Your task to perform on an android device: allow cookies in the chrome app Image 0: 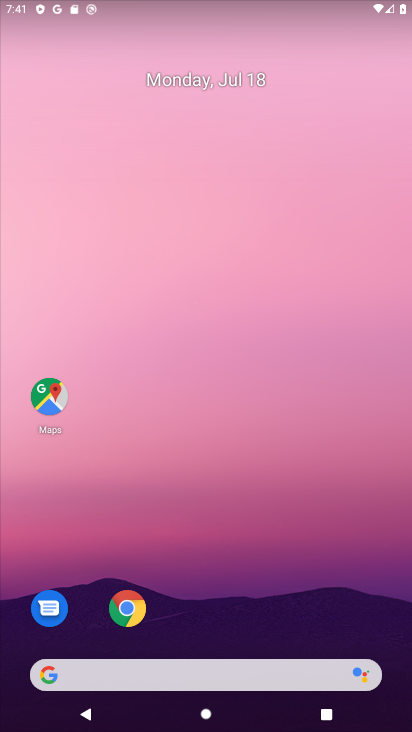
Step 0: click (127, 607)
Your task to perform on an android device: allow cookies in the chrome app Image 1: 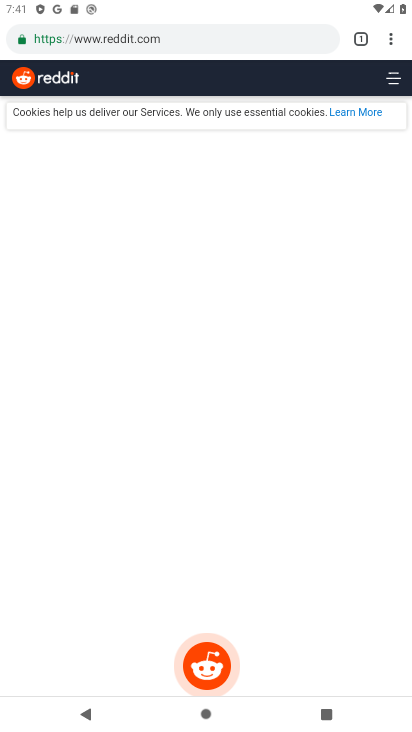
Step 1: click (388, 35)
Your task to perform on an android device: allow cookies in the chrome app Image 2: 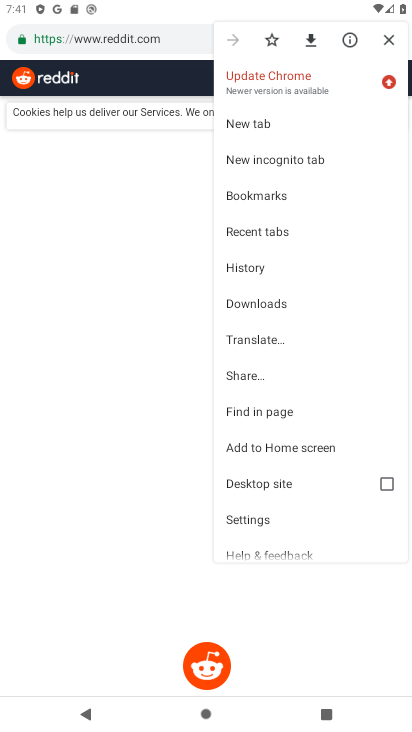
Step 2: click (246, 519)
Your task to perform on an android device: allow cookies in the chrome app Image 3: 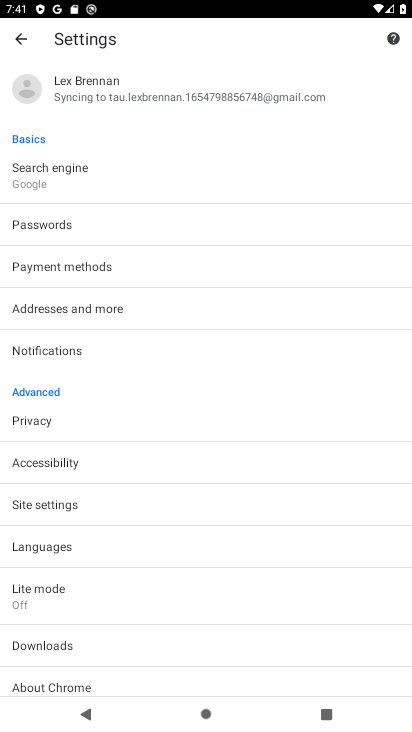
Step 3: click (48, 502)
Your task to perform on an android device: allow cookies in the chrome app Image 4: 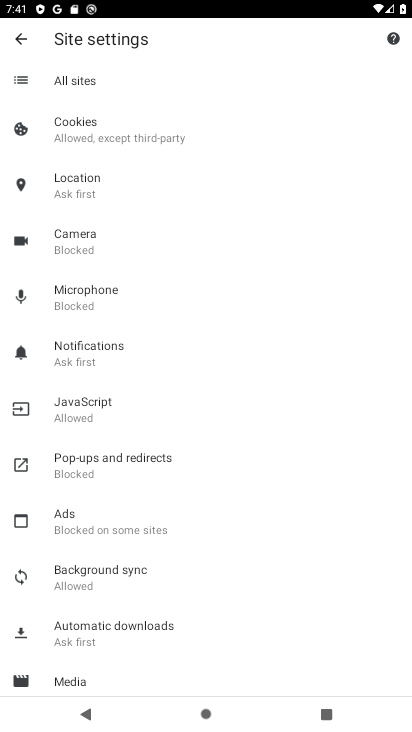
Step 4: click (98, 138)
Your task to perform on an android device: allow cookies in the chrome app Image 5: 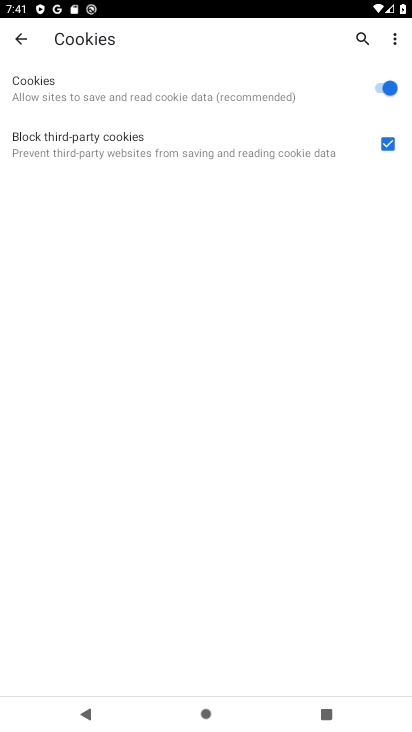
Step 5: task complete